Your task to perform on an android device: choose inbox layout in the gmail app Image 0: 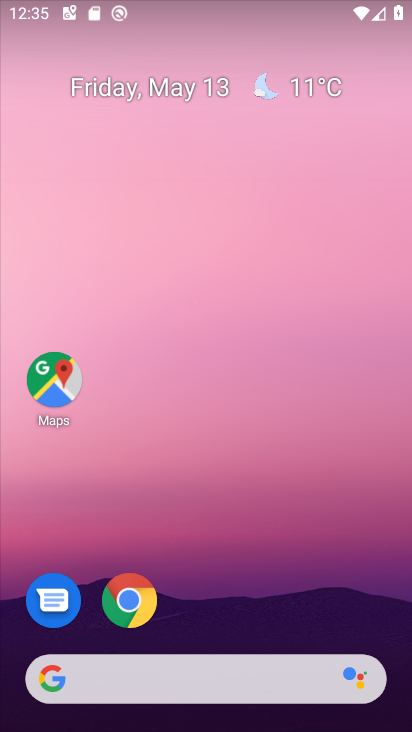
Step 0: drag from (198, 558) to (247, 103)
Your task to perform on an android device: choose inbox layout in the gmail app Image 1: 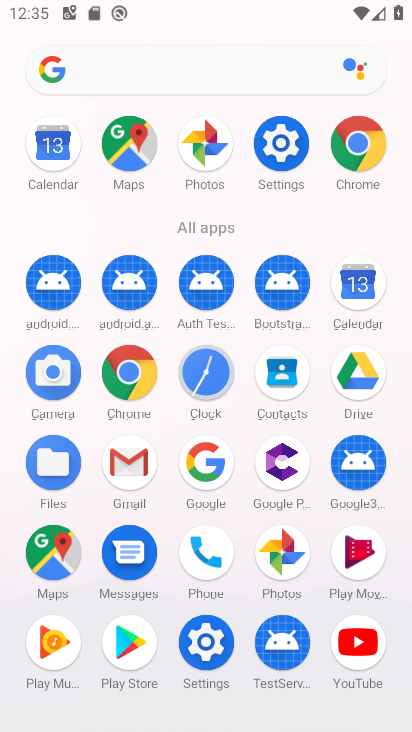
Step 1: click (138, 463)
Your task to perform on an android device: choose inbox layout in the gmail app Image 2: 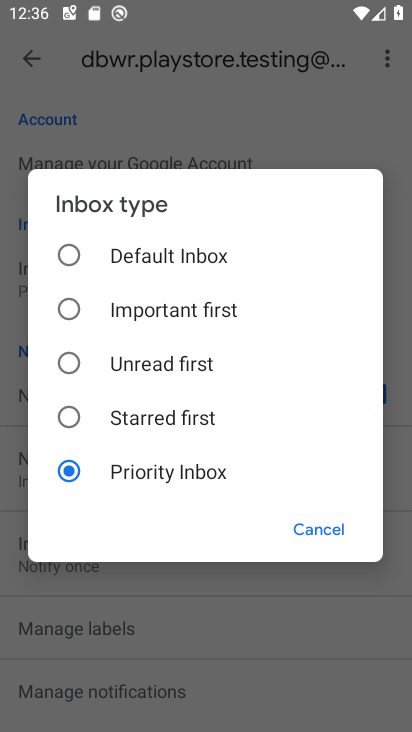
Step 2: click (74, 256)
Your task to perform on an android device: choose inbox layout in the gmail app Image 3: 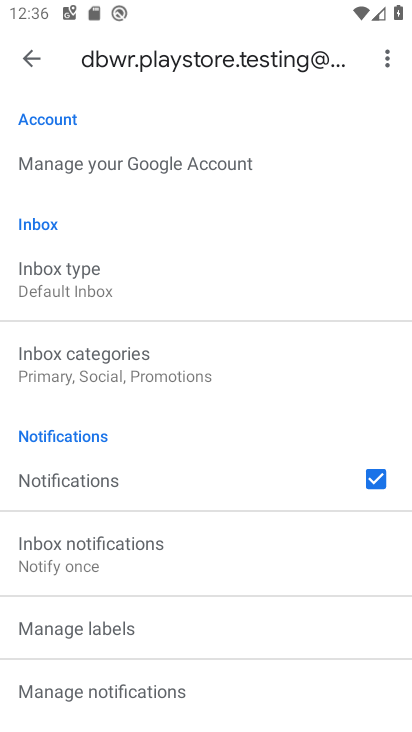
Step 3: task complete